Your task to perform on an android device: see sites visited before in the chrome app Image 0: 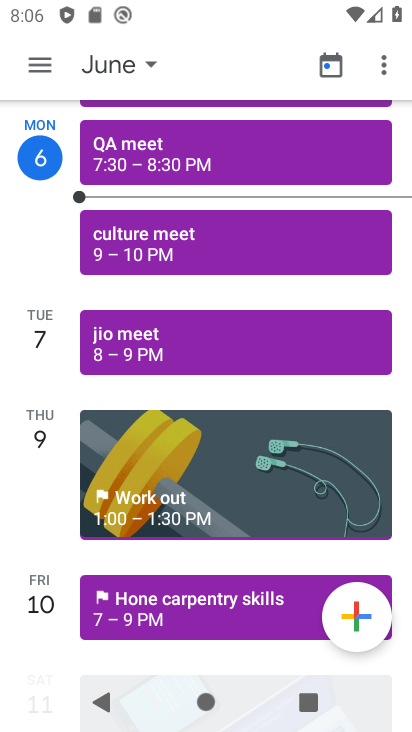
Step 0: press back button
Your task to perform on an android device: see sites visited before in the chrome app Image 1: 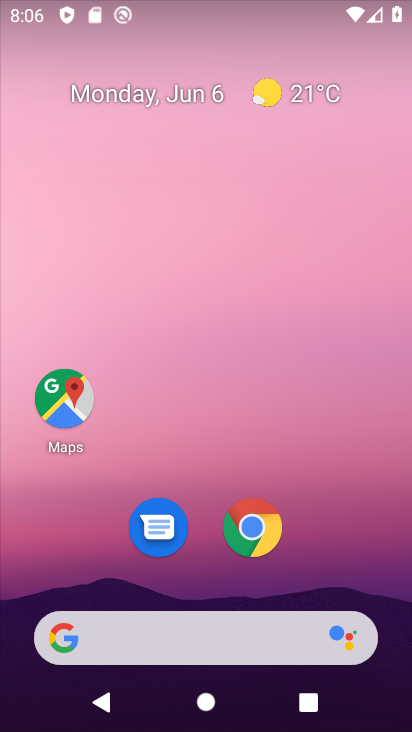
Step 1: click (248, 526)
Your task to perform on an android device: see sites visited before in the chrome app Image 2: 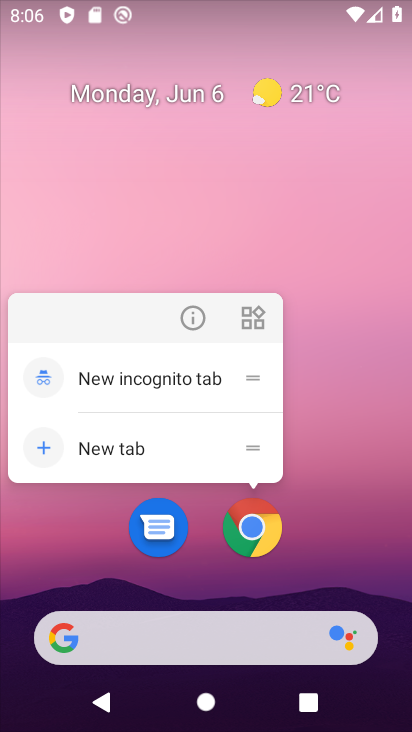
Step 2: click (248, 526)
Your task to perform on an android device: see sites visited before in the chrome app Image 3: 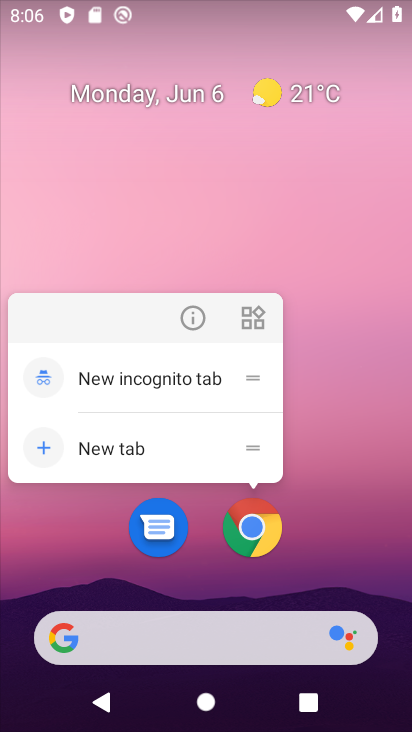
Step 3: click (248, 529)
Your task to perform on an android device: see sites visited before in the chrome app Image 4: 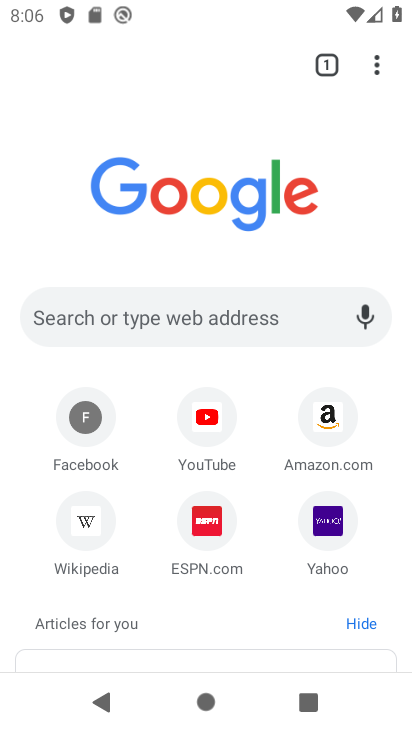
Step 4: task complete